Your task to perform on an android device: Open Chrome and go to settings Image 0: 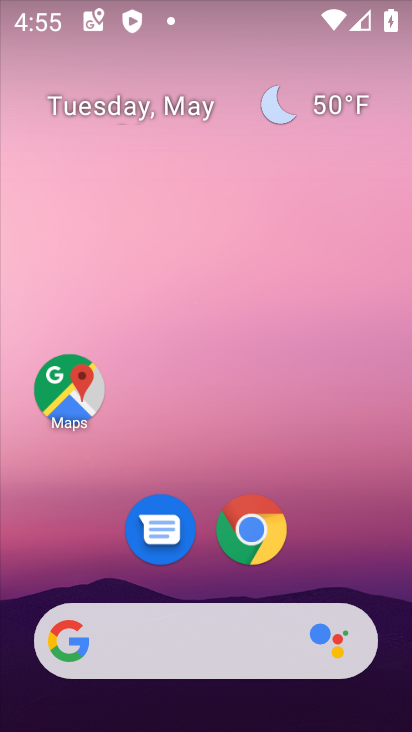
Step 0: drag from (310, 463) to (250, 29)
Your task to perform on an android device: Open Chrome and go to settings Image 1: 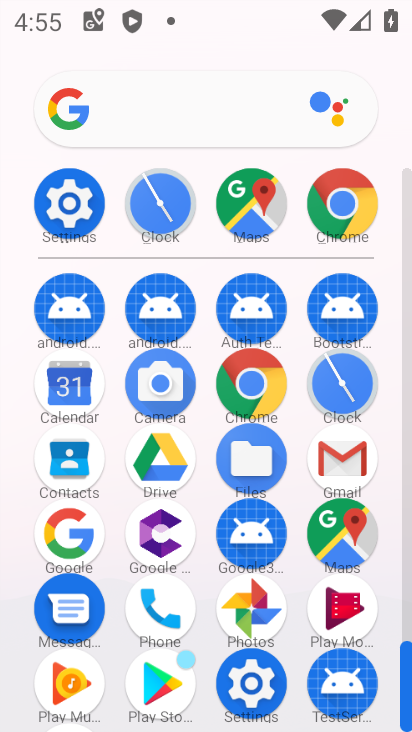
Step 1: drag from (20, 532) to (22, 176)
Your task to perform on an android device: Open Chrome and go to settings Image 2: 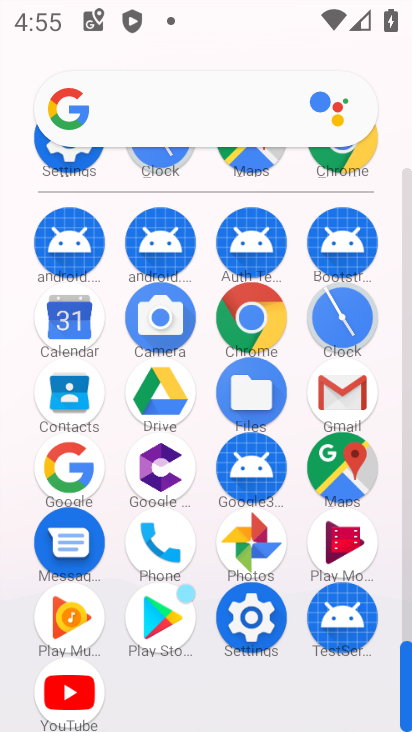
Step 2: click (255, 617)
Your task to perform on an android device: Open Chrome and go to settings Image 3: 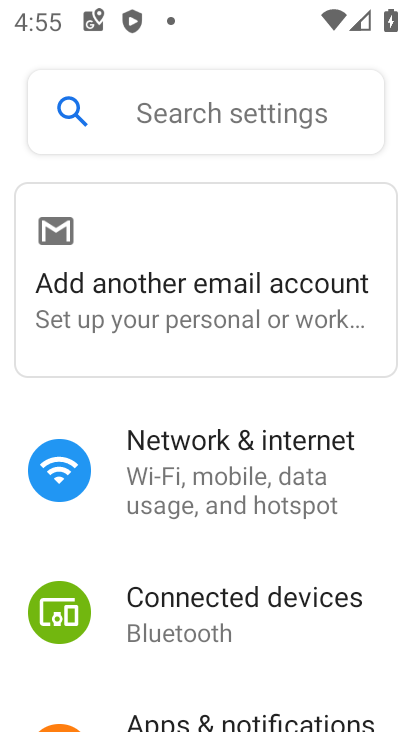
Step 3: press back button
Your task to perform on an android device: Open Chrome and go to settings Image 4: 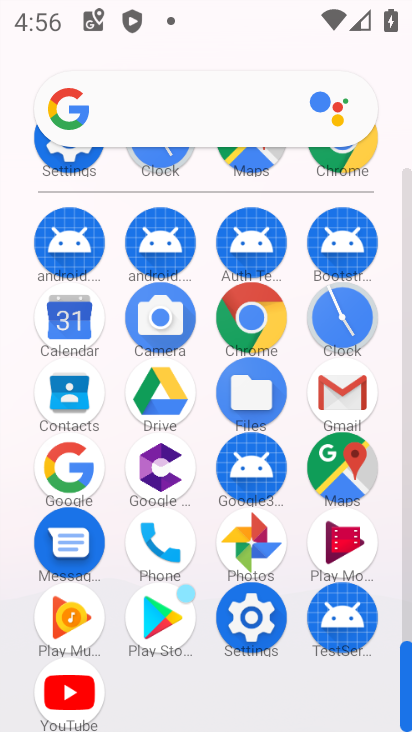
Step 4: click (256, 316)
Your task to perform on an android device: Open Chrome and go to settings Image 5: 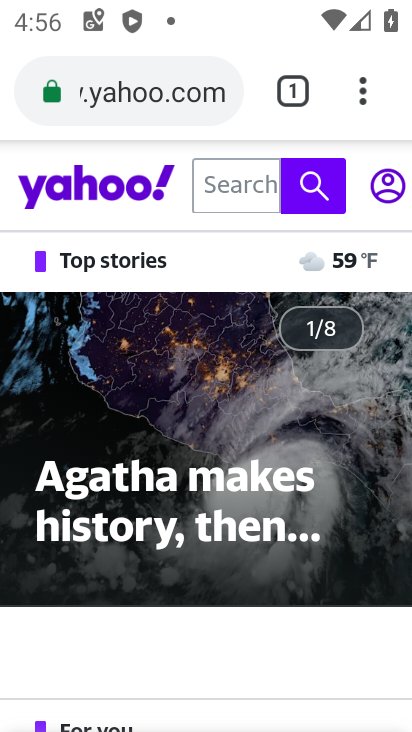
Step 5: task complete